Your task to perform on an android device: Find coffee shops on Maps Image 0: 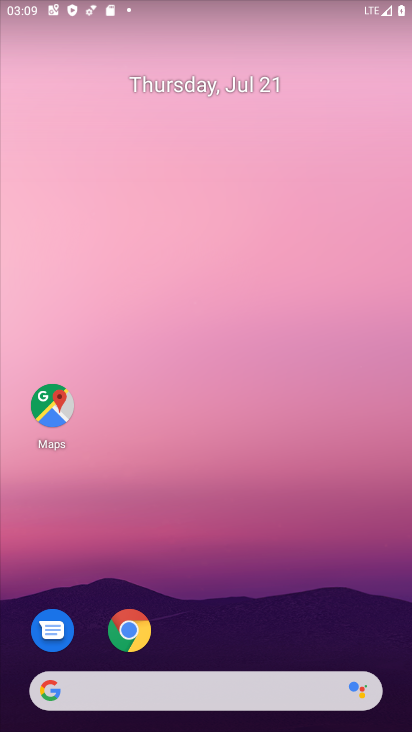
Step 0: click (32, 418)
Your task to perform on an android device: Find coffee shops on Maps Image 1: 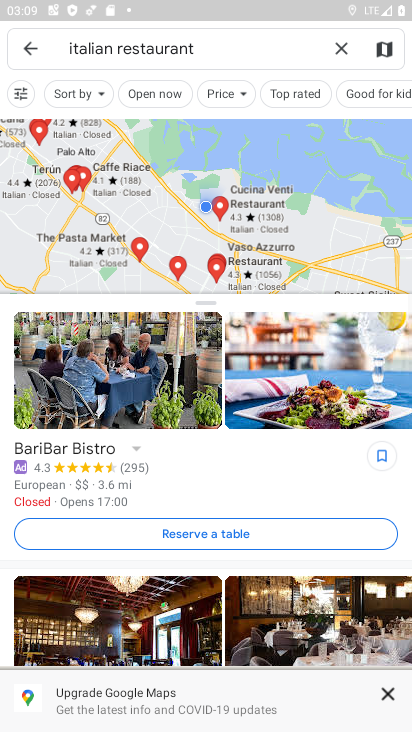
Step 1: click (351, 39)
Your task to perform on an android device: Find coffee shops on Maps Image 2: 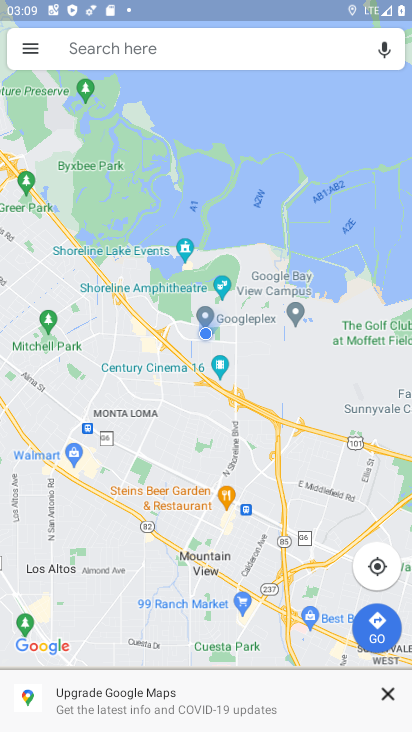
Step 2: click (255, 69)
Your task to perform on an android device: Find coffee shops on Maps Image 3: 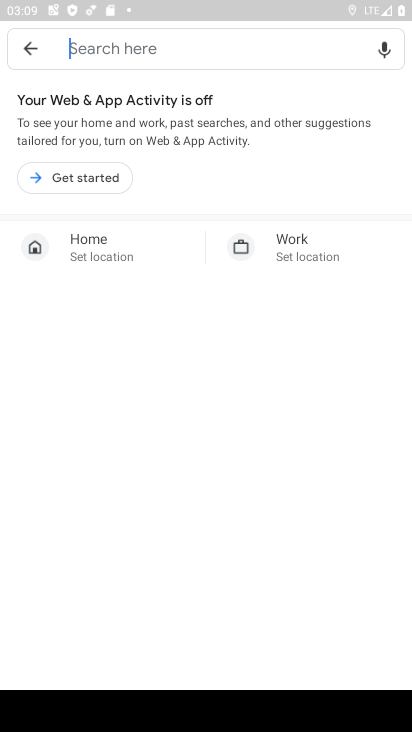
Step 3: type "coffee shop"
Your task to perform on an android device: Find coffee shops on Maps Image 4: 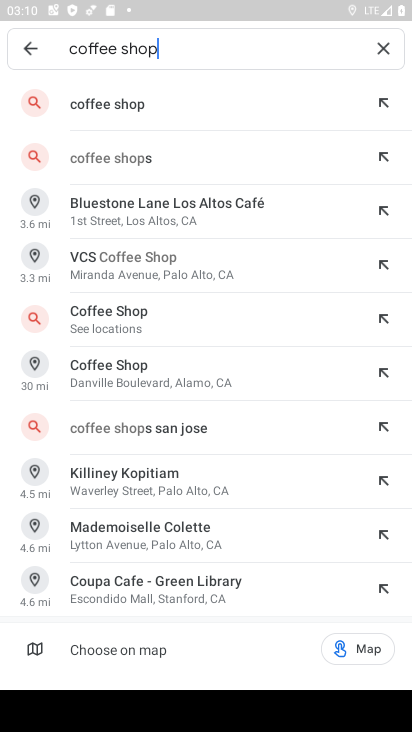
Step 4: click (260, 101)
Your task to perform on an android device: Find coffee shops on Maps Image 5: 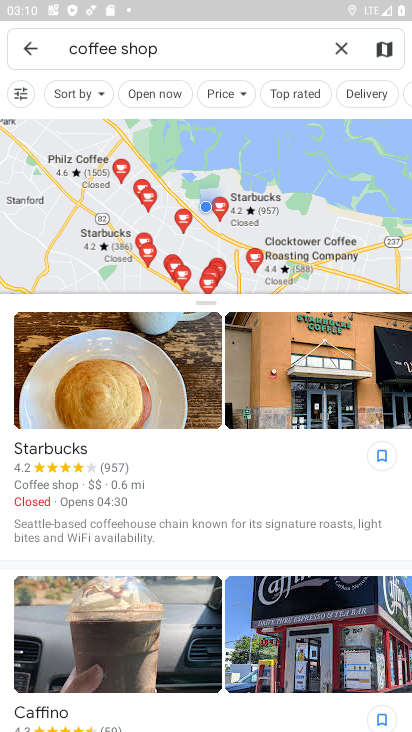
Step 5: task complete